Your task to perform on an android device: Open my contact list Image 0: 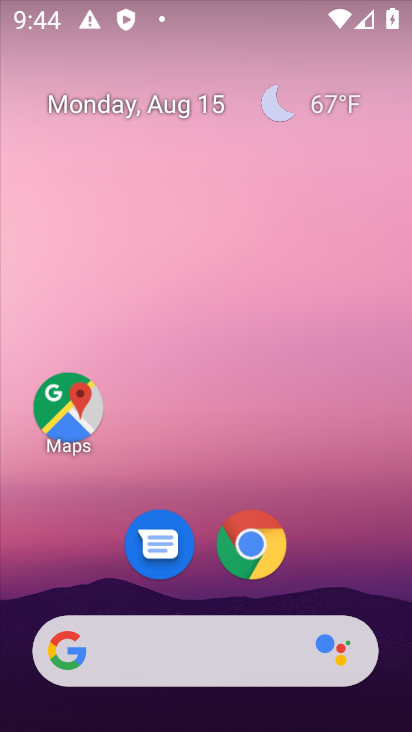
Step 0: drag from (162, 642) to (210, 122)
Your task to perform on an android device: Open my contact list Image 1: 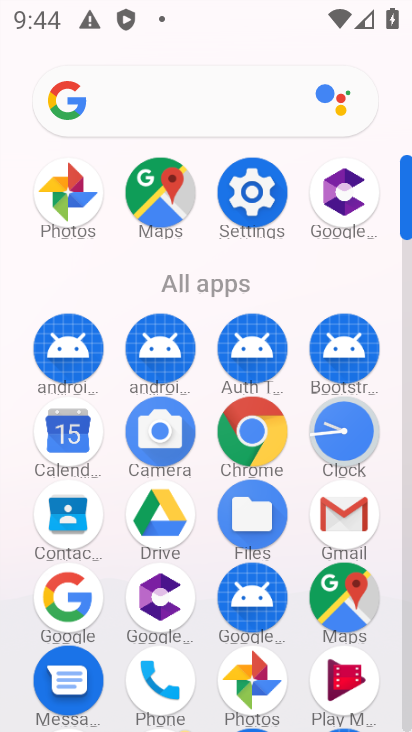
Step 1: click (76, 513)
Your task to perform on an android device: Open my contact list Image 2: 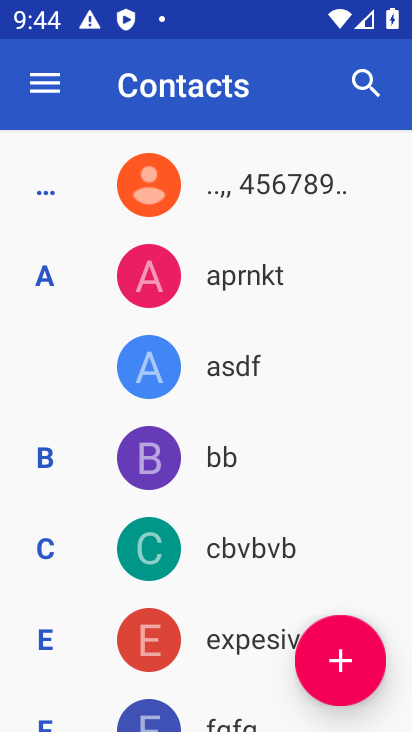
Step 2: task complete